Your task to perform on an android device: Is it going to rain this weekend? Image 0: 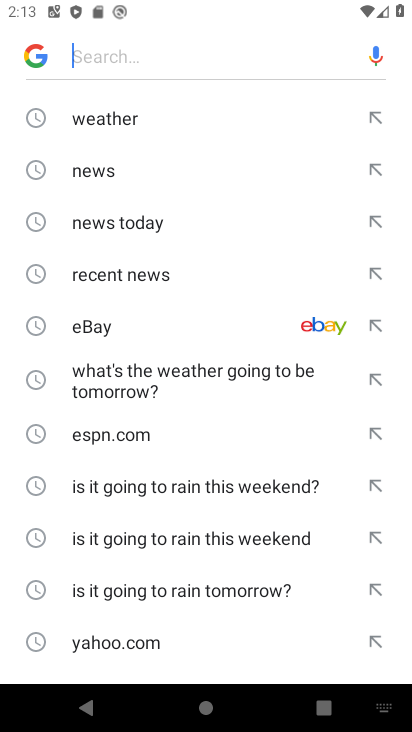
Step 0: press home button
Your task to perform on an android device: Is it going to rain this weekend? Image 1: 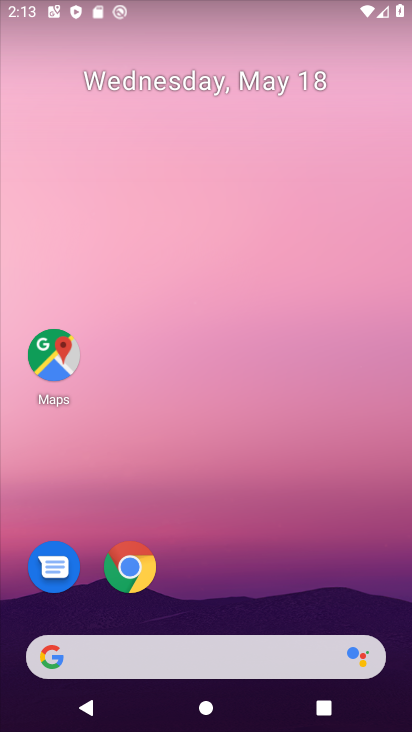
Step 1: click (135, 561)
Your task to perform on an android device: Is it going to rain this weekend? Image 2: 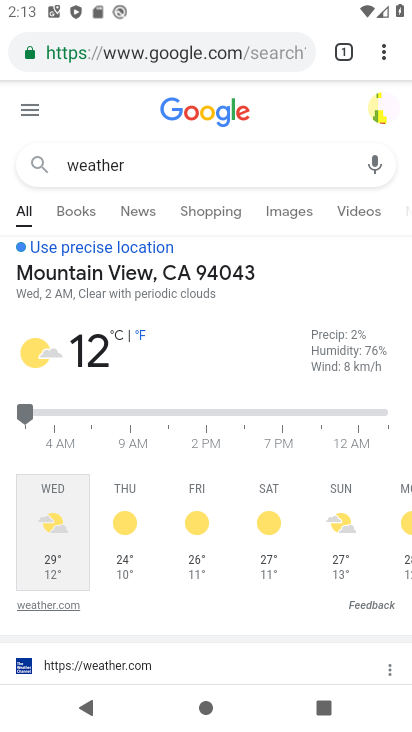
Step 2: task complete